Your task to perform on an android device: turn on notifications settings in the gmail app Image 0: 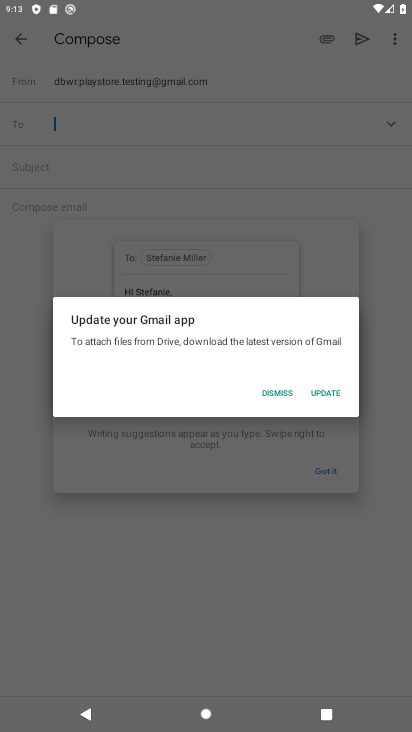
Step 0: press home button
Your task to perform on an android device: turn on notifications settings in the gmail app Image 1: 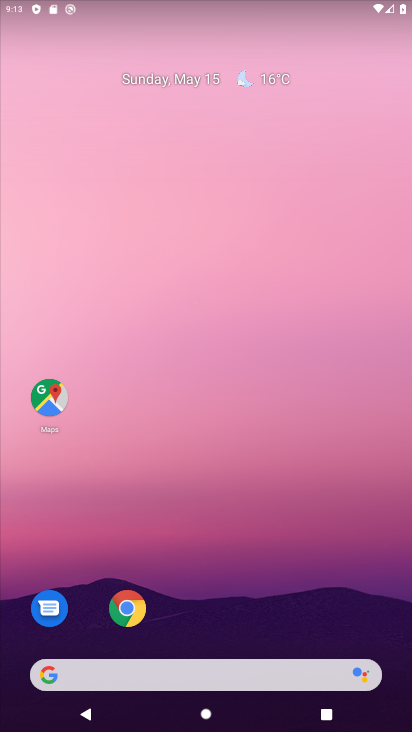
Step 1: drag from (209, 649) to (267, 30)
Your task to perform on an android device: turn on notifications settings in the gmail app Image 2: 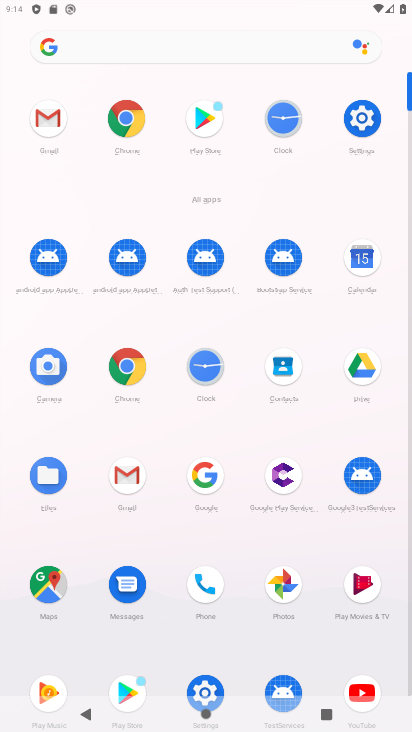
Step 2: click (110, 464)
Your task to perform on an android device: turn on notifications settings in the gmail app Image 3: 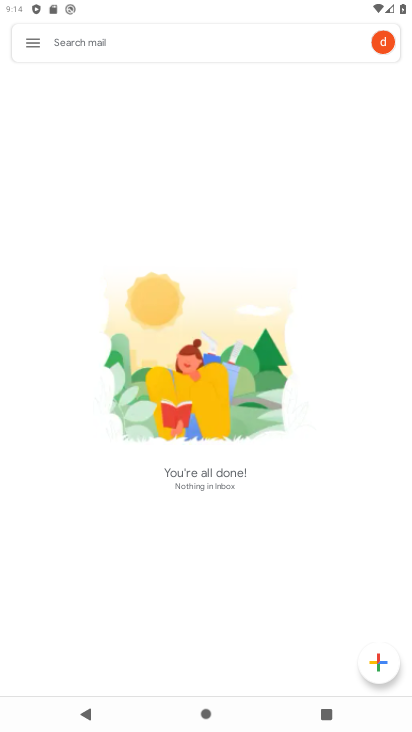
Step 3: click (27, 41)
Your task to perform on an android device: turn on notifications settings in the gmail app Image 4: 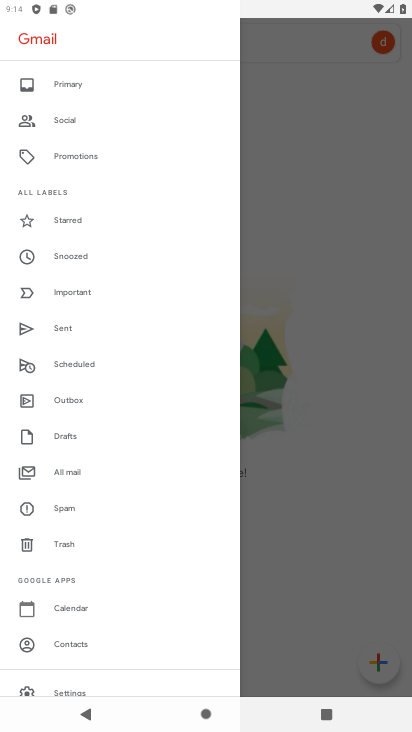
Step 4: click (66, 689)
Your task to perform on an android device: turn on notifications settings in the gmail app Image 5: 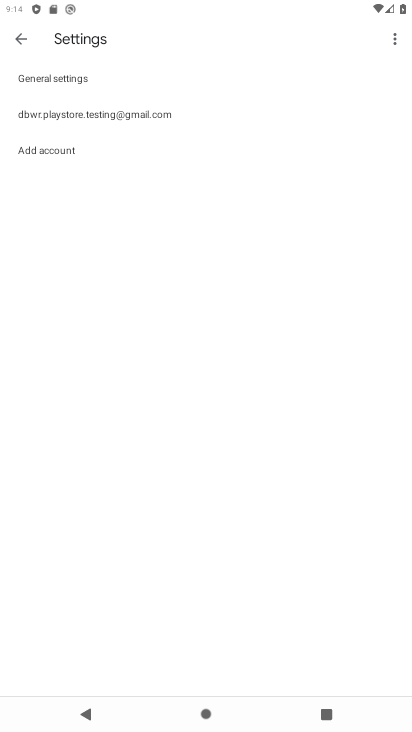
Step 5: click (51, 78)
Your task to perform on an android device: turn on notifications settings in the gmail app Image 6: 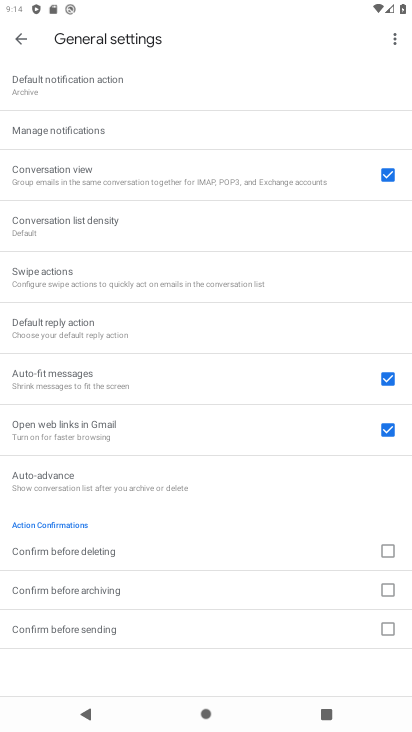
Step 6: click (130, 120)
Your task to perform on an android device: turn on notifications settings in the gmail app Image 7: 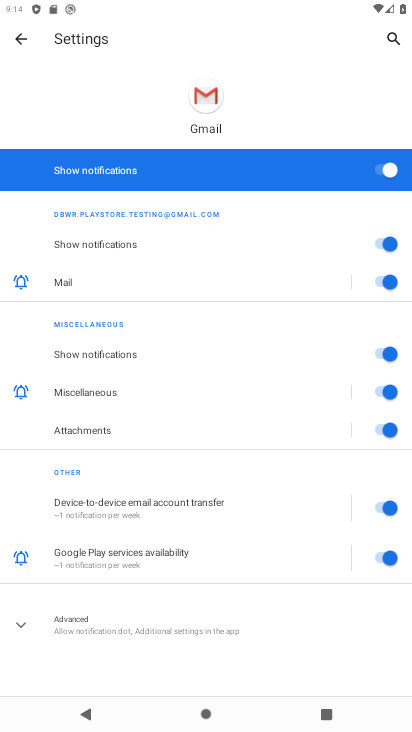
Step 7: task complete